Your task to perform on an android device: allow notifications from all sites in the chrome app Image 0: 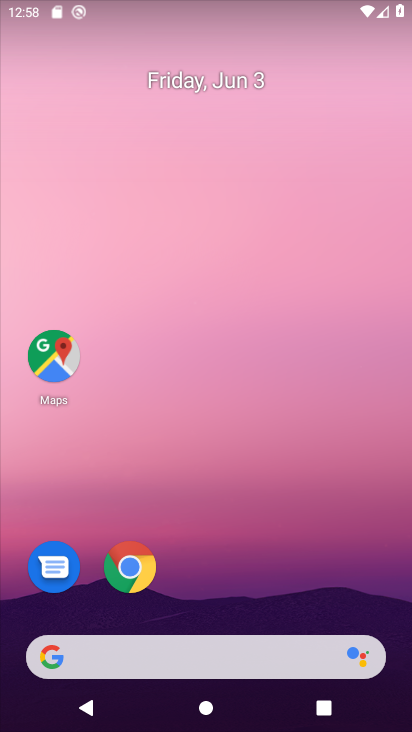
Step 0: drag from (231, 614) to (266, 236)
Your task to perform on an android device: allow notifications from all sites in the chrome app Image 1: 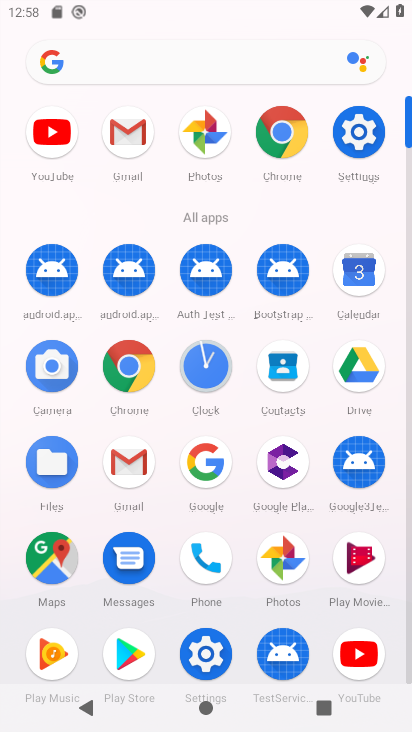
Step 1: click (278, 135)
Your task to perform on an android device: allow notifications from all sites in the chrome app Image 2: 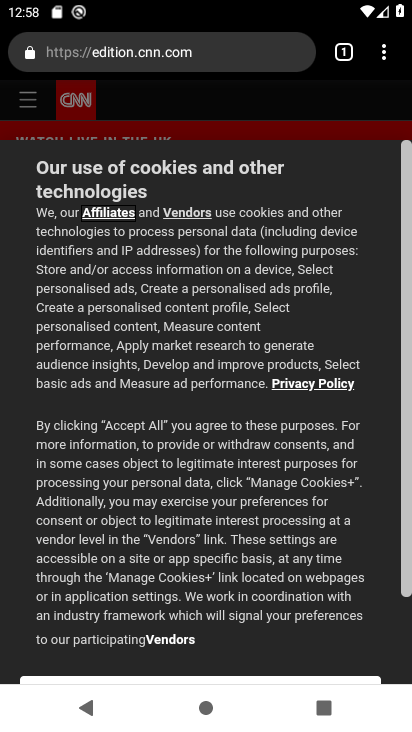
Step 2: click (376, 43)
Your task to perform on an android device: allow notifications from all sites in the chrome app Image 3: 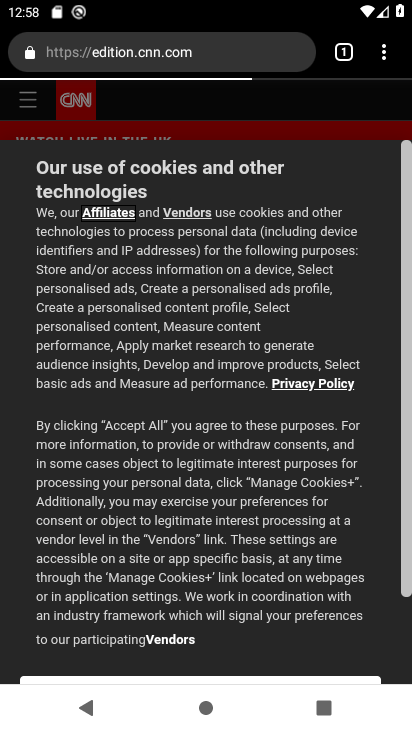
Step 3: click (382, 44)
Your task to perform on an android device: allow notifications from all sites in the chrome app Image 4: 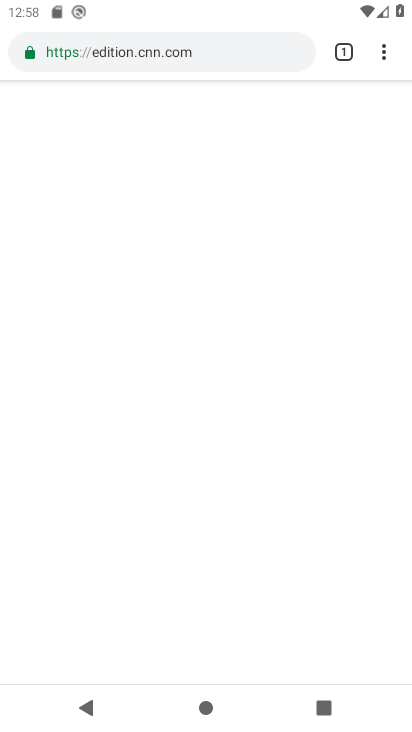
Step 4: click (387, 54)
Your task to perform on an android device: allow notifications from all sites in the chrome app Image 5: 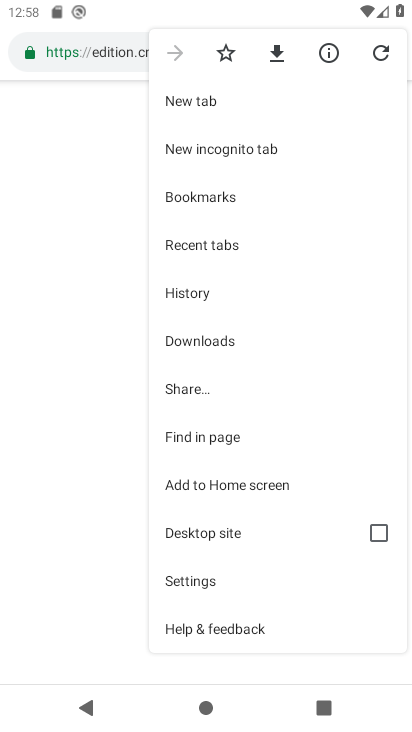
Step 5: click (207, 578)
Your task to perform on an android device: allow notifications from all sites in the chrome app Image 6: 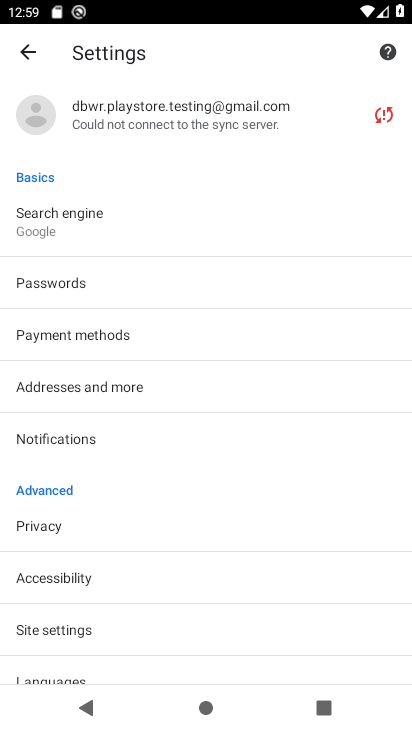
Step 6: drag from (129, 621) to (198, 372)
Your task to perform on an android device: allow notifications from all sites in the chrome app Image 7: 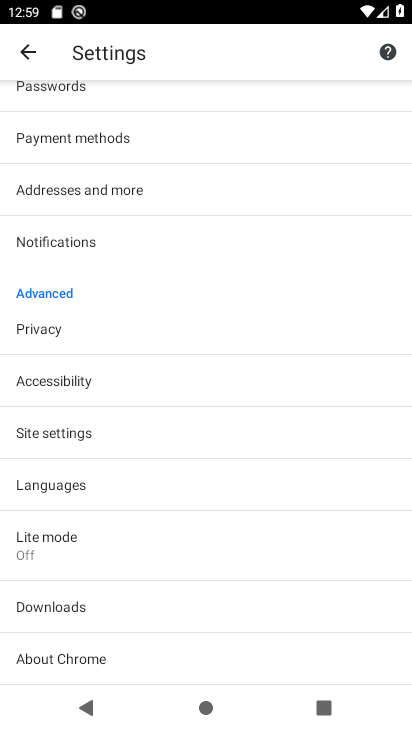
Step 7: click (86, 434)
Your task to perform on an android device: allow notifications from all sites in the chrome app Image 8: 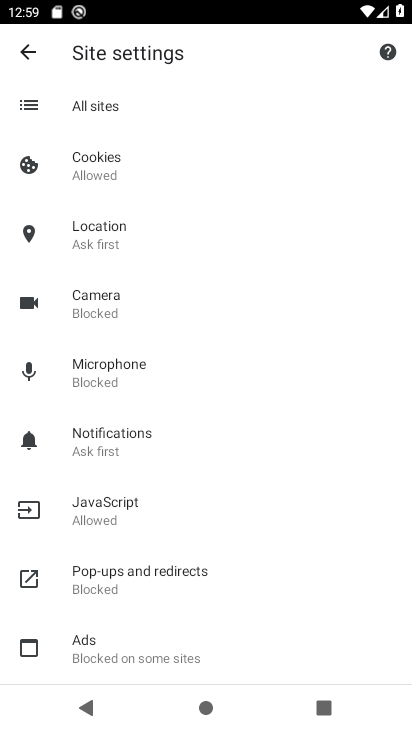
Step 8: task complete